Your task to perform on an android device: Open Google Maps Image 0: 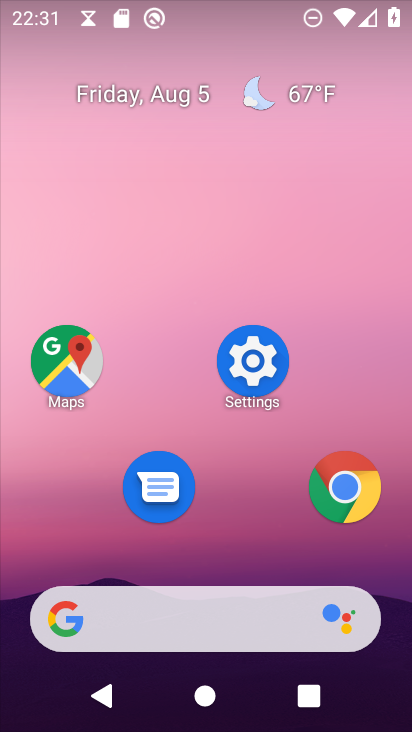
Step 0: press home button
Your task to perform on an android device: Open Google Maps Image 1: 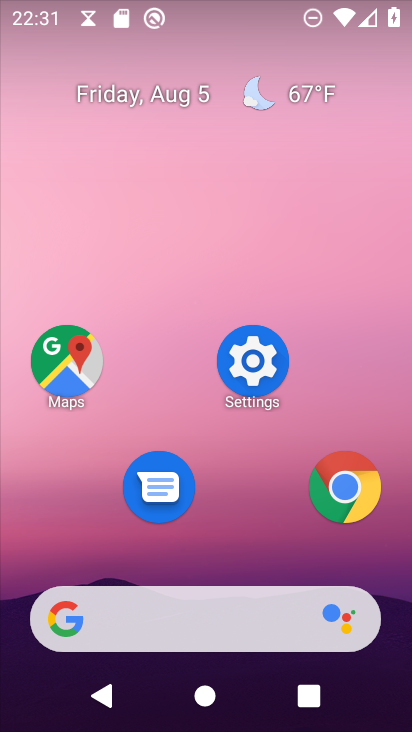
Step 1: click (69, 376)
Your task to perform on an android device: Open Google Maps Image 2: 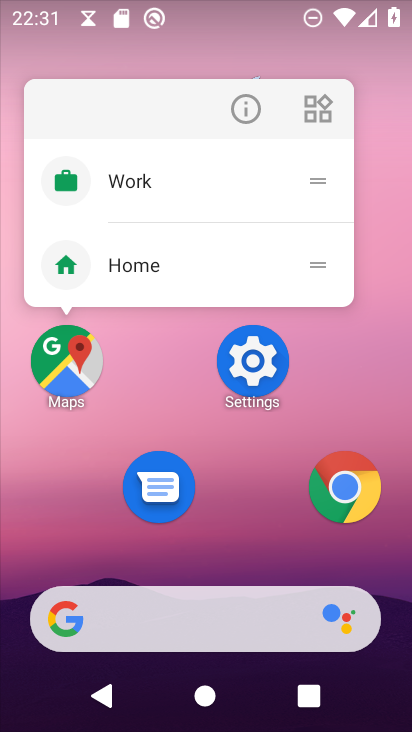
Step 2: click (70, 362)
Your task to perform on an android device: Open Google Maps Image 3: 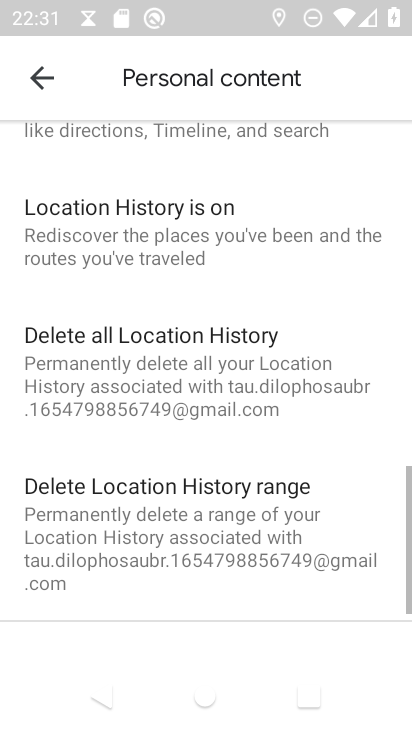
Step 3: click (44, 72)
Your task to perform on an android device: Open Google Maps Image 4: 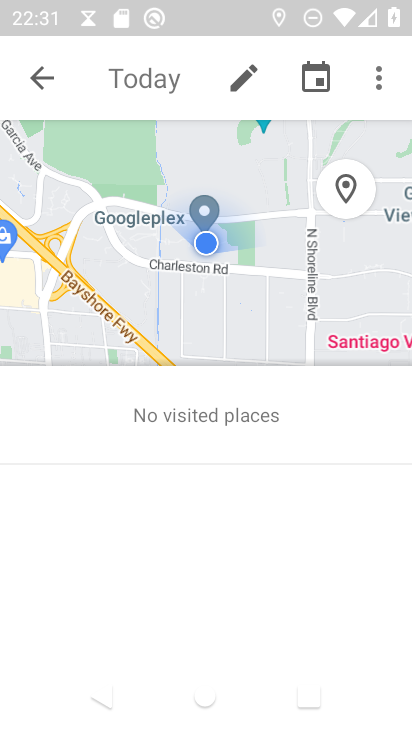
Step 4: click (46, 78)
Your task to perform on an android device: Open Google Maps Image 5: 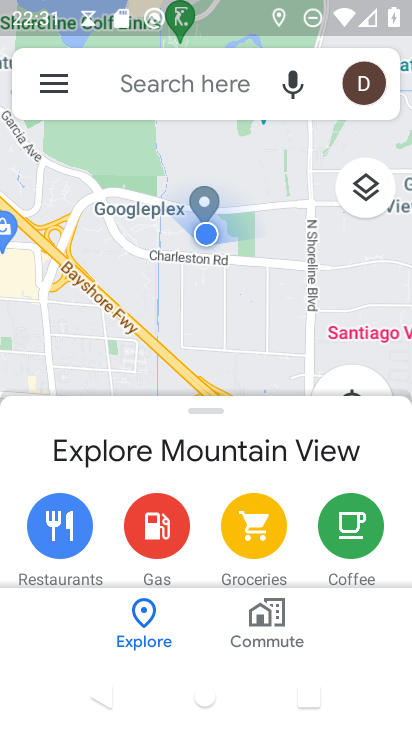
Step 5: task complete